Your task to perform on an android device: delete a single message in the gmail app Image 0: 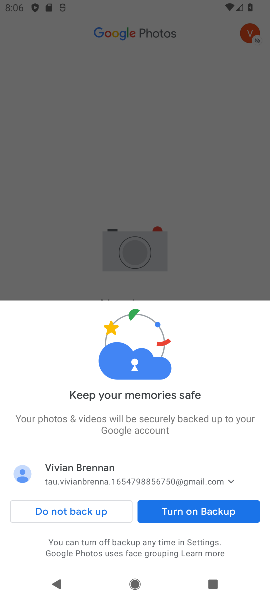
Step 0: press home button
Your task to perform on an android device: delete a single message in the gmail app Image 1: 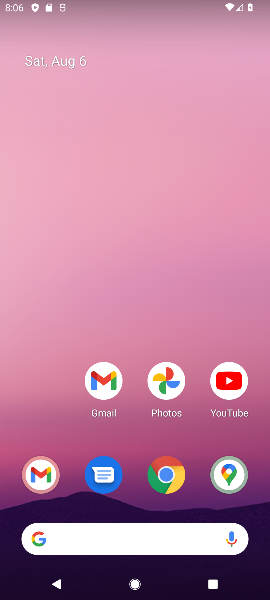
Step 1: click (107, 391)
Your task to perform on an android device: delete a single message in the gmail app Image 2: 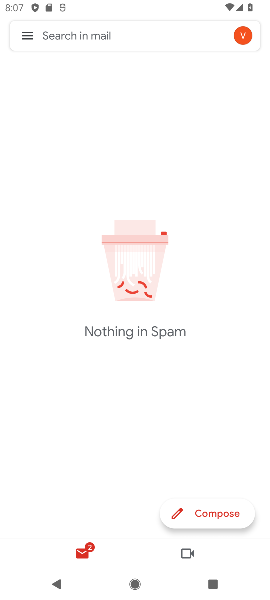
Step 2: task complete